Your task to perform on an android device: Go to notification settings Image 0: 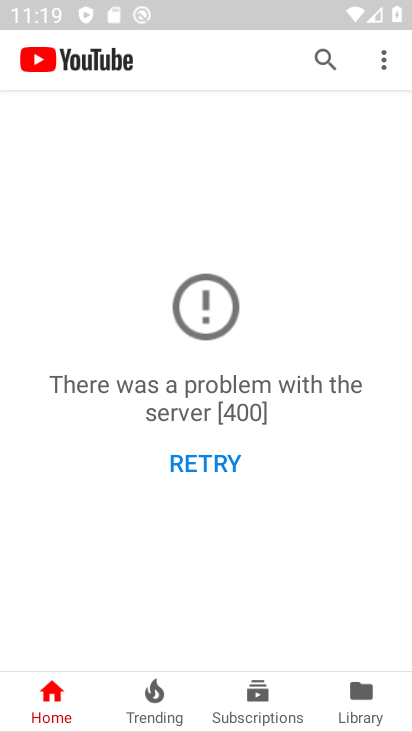
Step 0: press back button
Your task to perform on an android device: Go to notification settings Image 1: 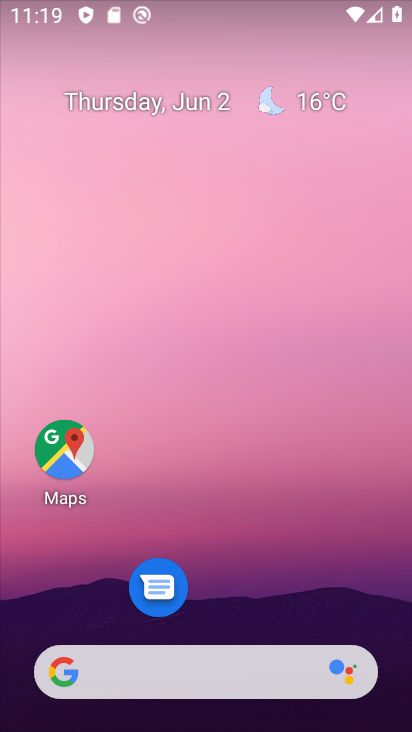
Step 1: drag from (214, 636) to (50, 54)
Your task to perform on an android device: Go to notification settings Image 2: 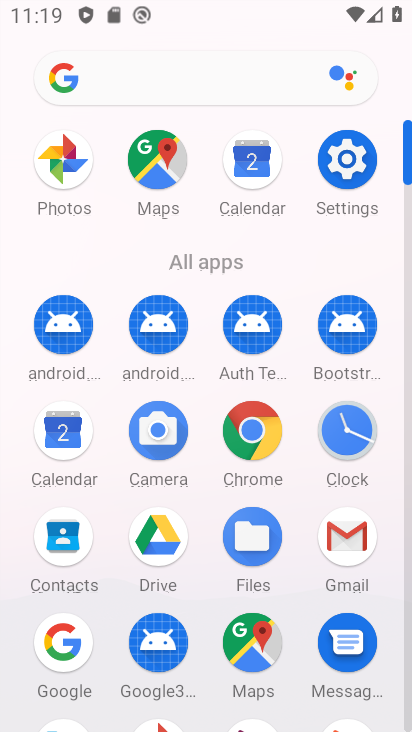
Step 2: click (352, 162)
Your task to perform on an android device: Go to notification settings Image 3: 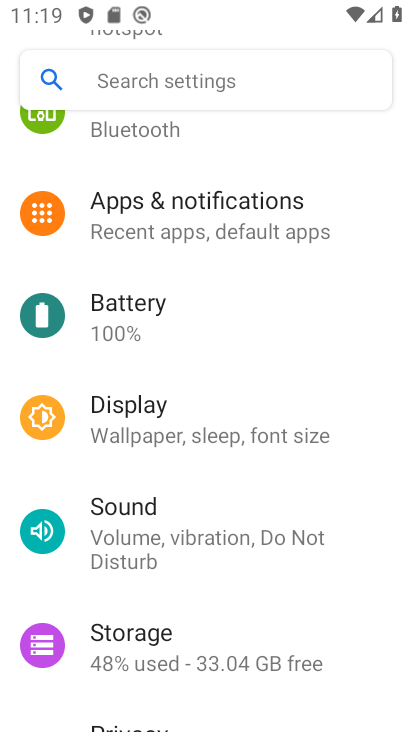
Step 3: drag from (221, 534) to (210, 112)
Your task to perform on an android device: Go to notification settings Image 4: 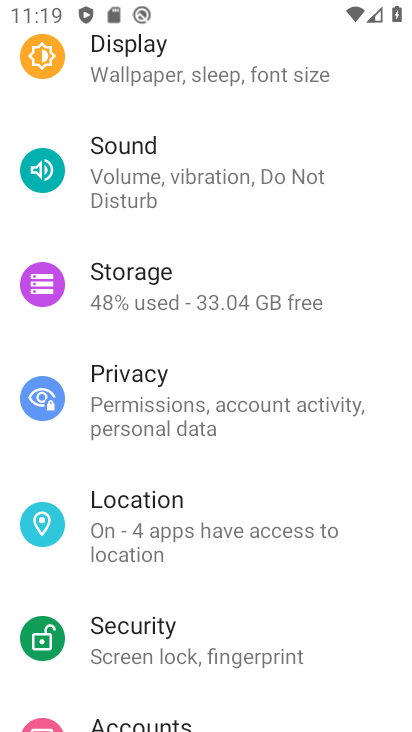
Step 4: drag from (90, 493) to (179, 673)
Your task to perform on an android device: Go to notification settings Image 5: 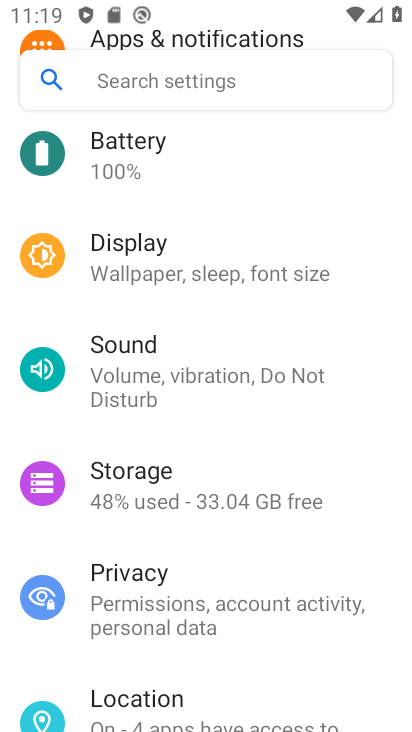
Step 5: drag from (274, 222) to (272, 506)
Your task to perform on an android device: Go to notification settings Image 6: 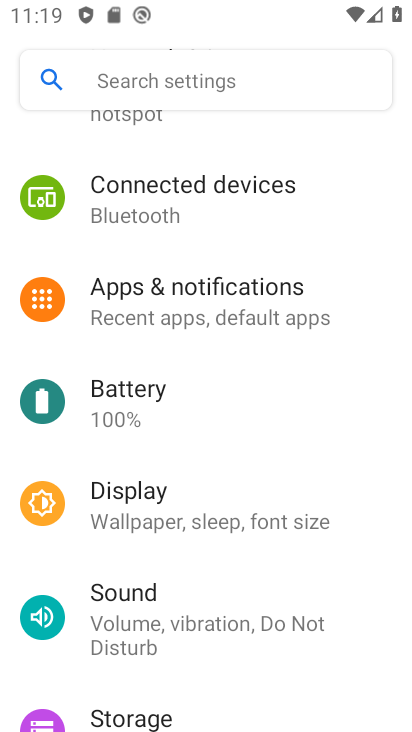
Step 6: click (228, 292)
Your task to perform on an android device: Go to notification settings Image 7: 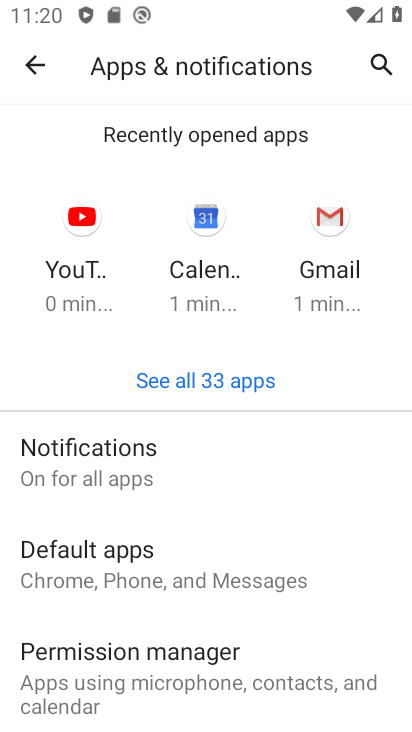
Step 7: task complete